Your task to perform on an android device: install app "Microsoft Authenticator" Image 0: 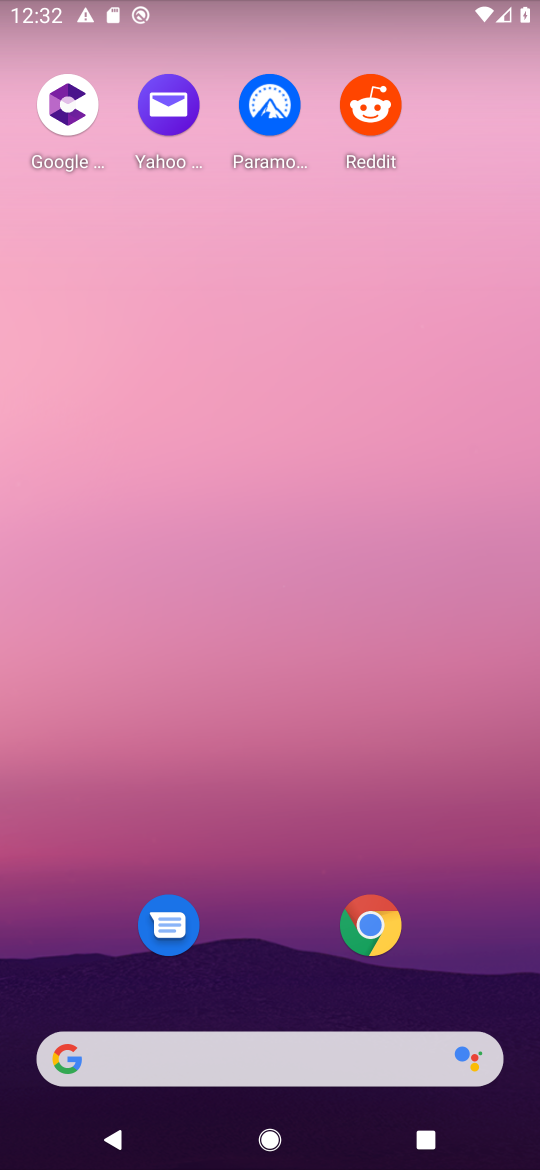
Step 0: drag from (284, 972) to (290, 57)
Your task to perform on an android device: install app "Microsoft Authenticator" Image 1: 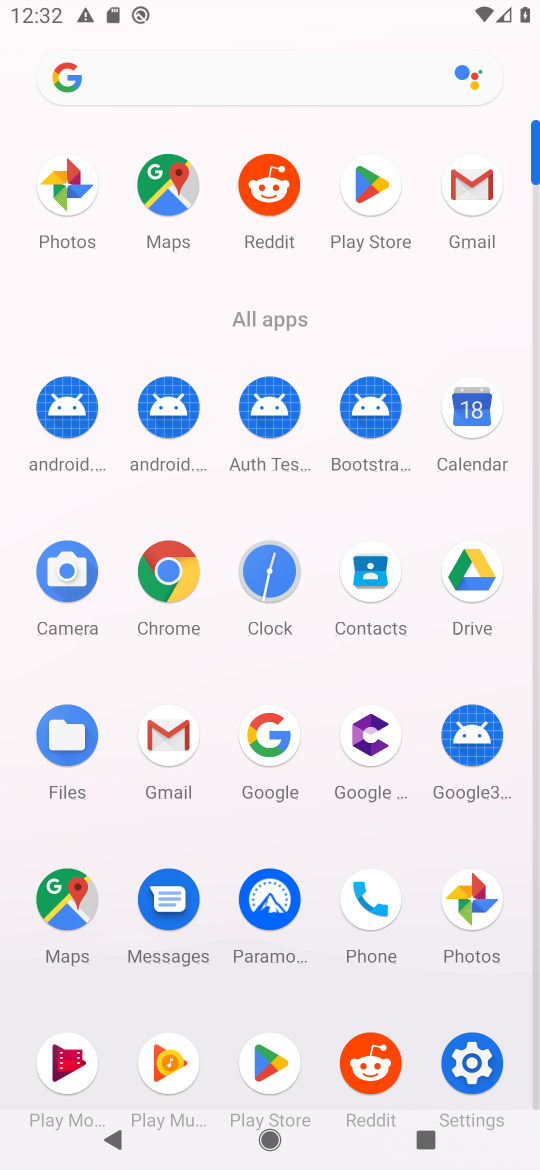
Step 1: click (386, 175)
Your task to perform on an android device: install app "Microsoft Authenticator" Image 2: 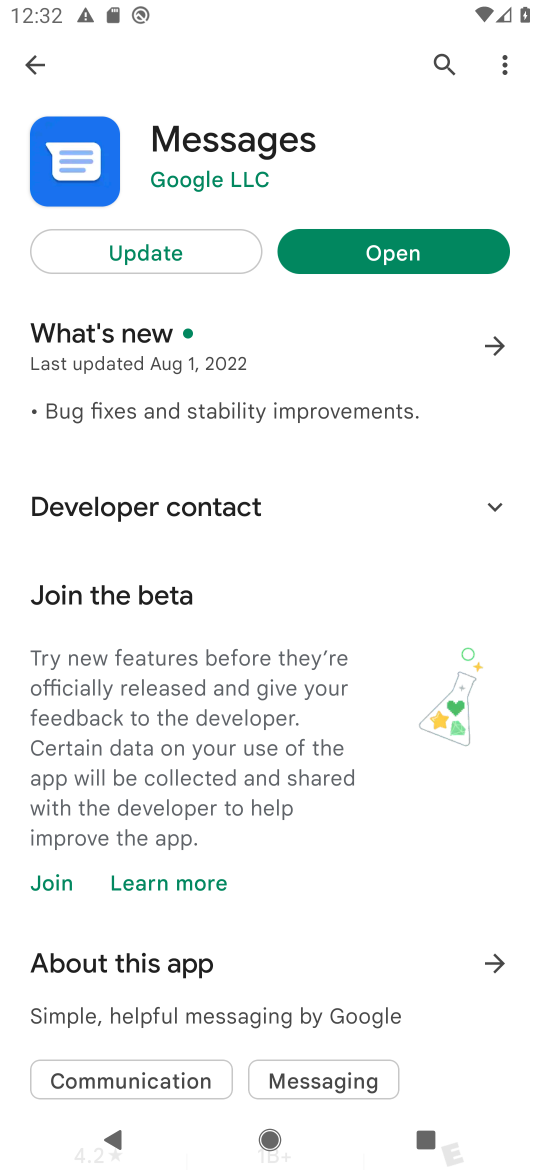
Step 2: click (35, 57)
Your task to perform on an android device: install app "Microsoft Authenticator" Image 3: 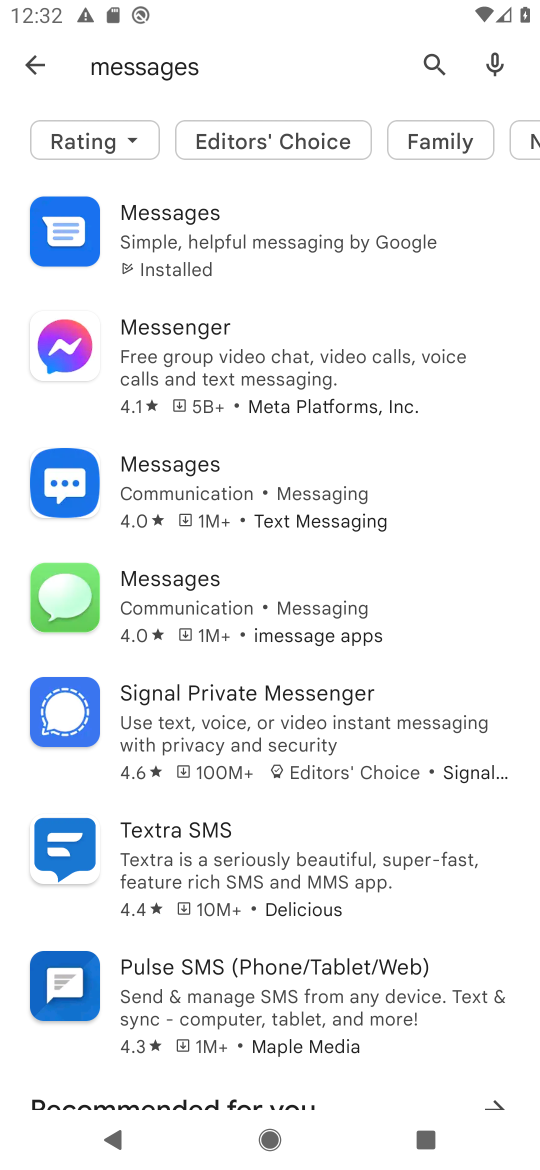
Step 3: click (26, 66)
Your task to perform on an android device: install app "Microsoft Authenticator" Image 4: 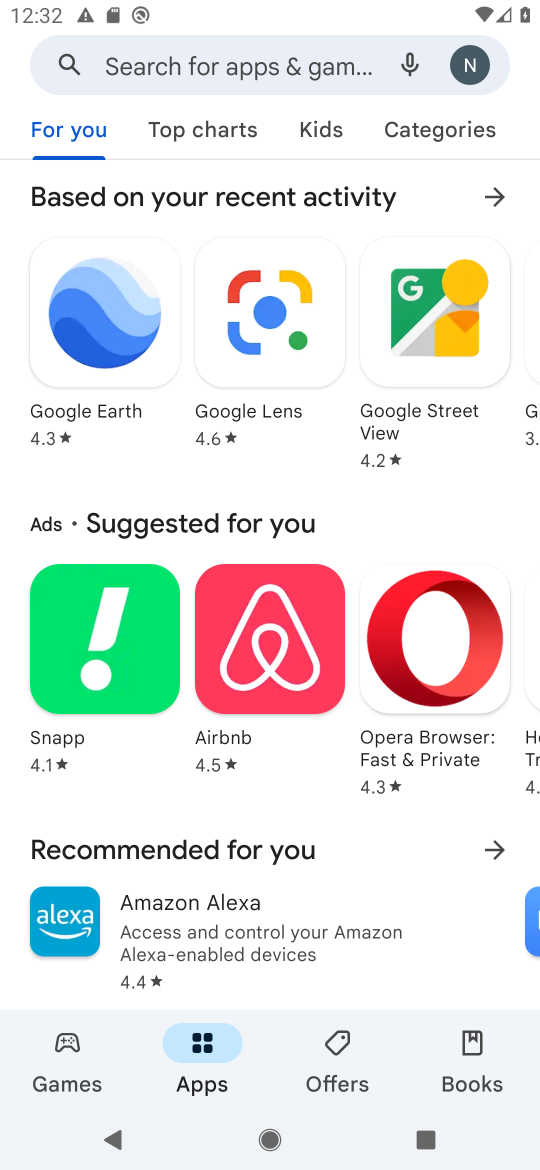
Step 4: click (26, 66)
Your task to perform on an android device: install app "Microsoft Authenticator" Image 5: 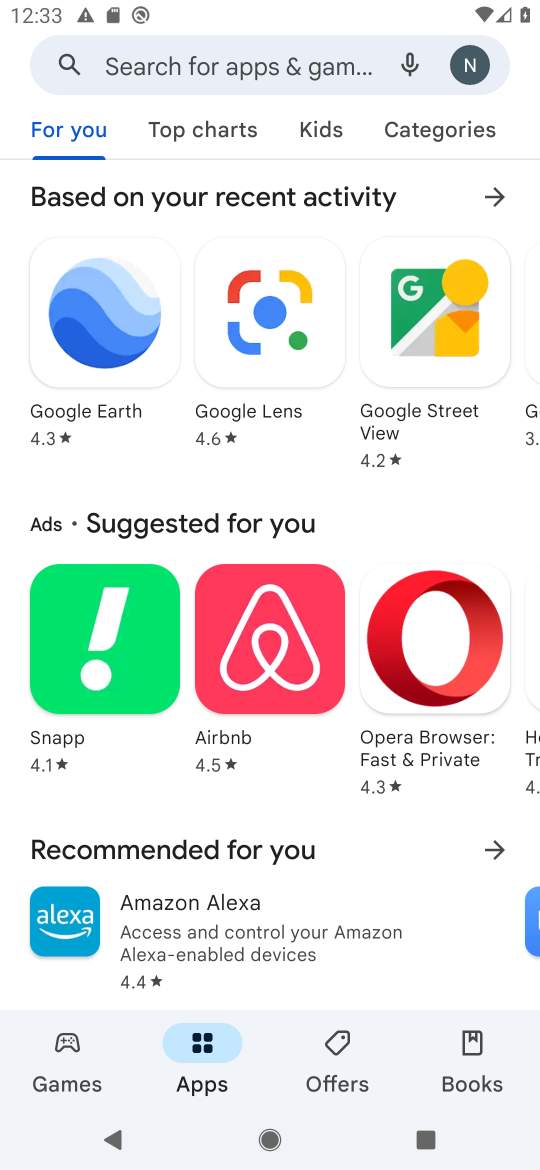
Step 5: click (243, 57)
Your task to perform on an android device: install app "Microsoft Authenticator" Image 6: 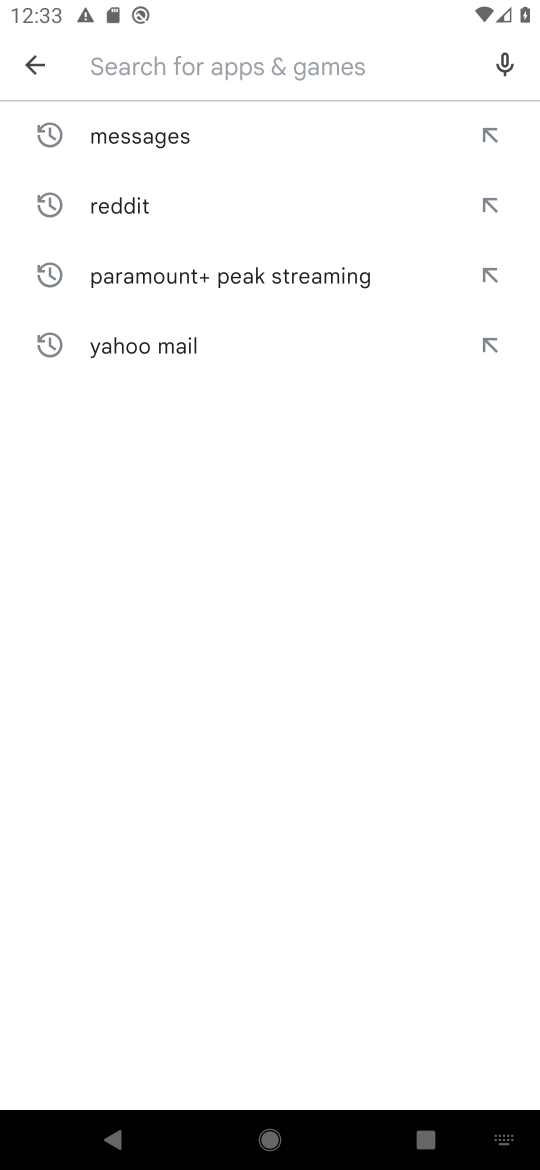
Step 6: type "Microsoft Authenticator"
Your task to perform on an android device: install app "Microsoft Authenticator" Image 7: 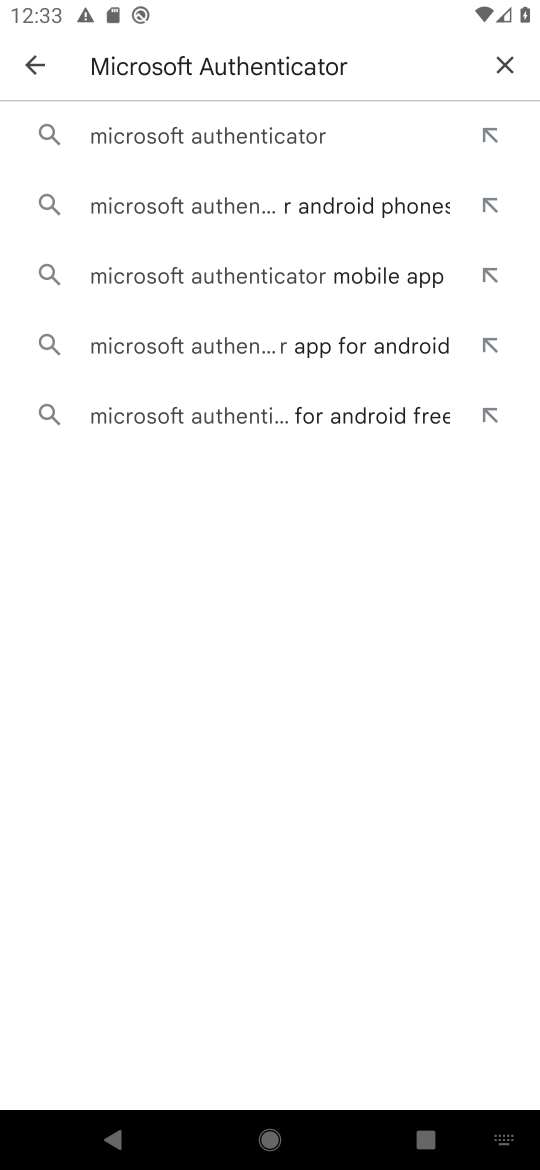
Step 7: click (284, 134)
Your task to perform on an android device: install app "Microsoft Authenticator" Image 8: 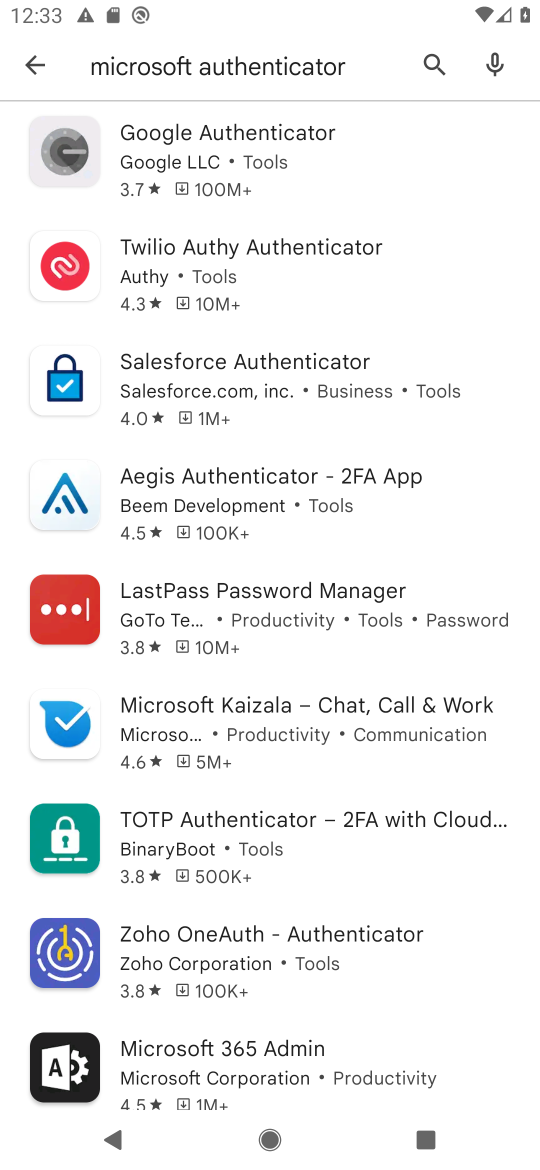
Step 8: task complete